Your task to perform on an android device: empty trash in the gmail app Image 0: 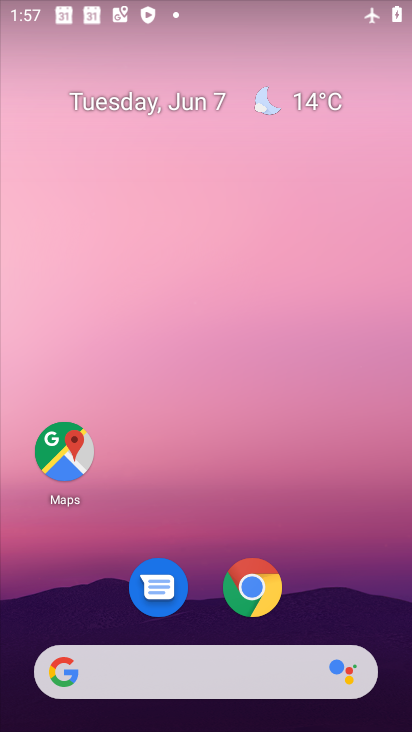
Step 0: drag from (263, 662) to (224, 177)
Your task to perform on an android device: empty trash in the gmail app Image 1: 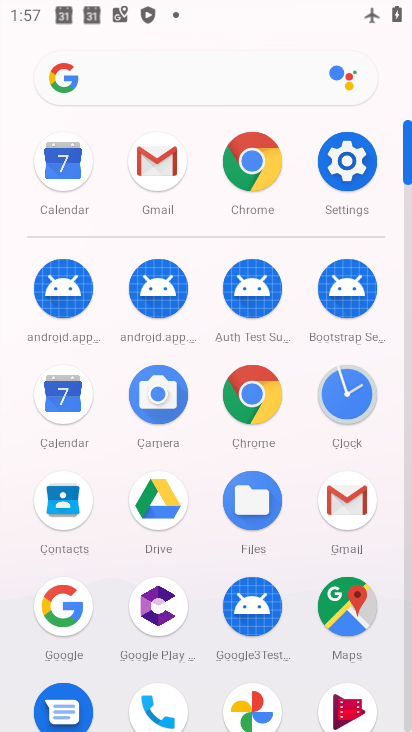
Step 1: drag from (229, 517) to (245, 294)
Your task to perform on an android device: empty trash in the gmail app Image 2: 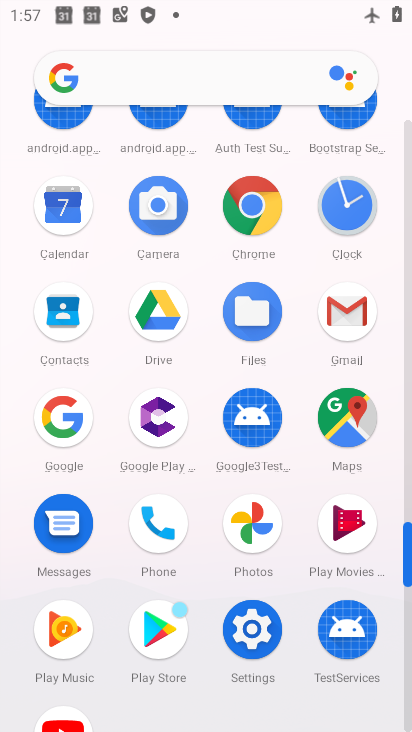
Step 2: click (356, 324)
Your task to perform on an android device: empty trash in the gmail app Image 3: 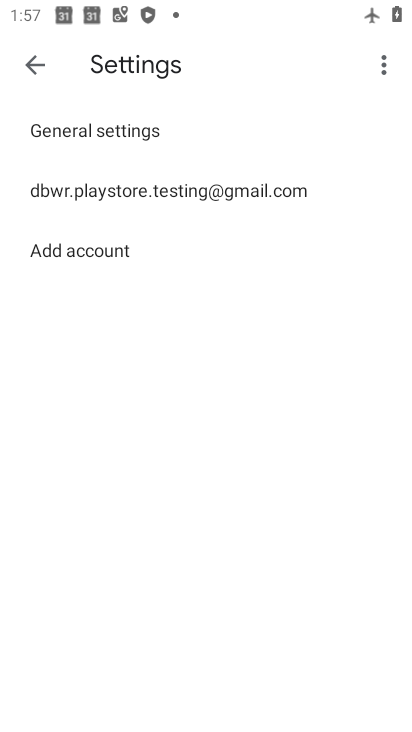
Step 3: click (32, 55)
Your task to perform on an android device: empty trash in the gmail app Image 4: 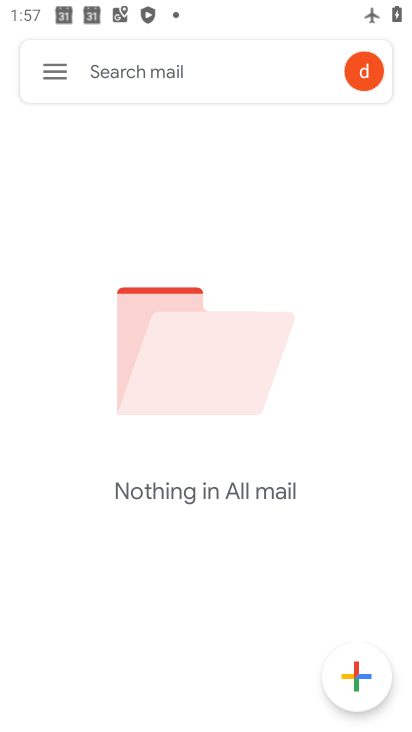
Step 4: click (66, 85)
Your task to perform on an android device: empty trash in the gmail app Image 5: 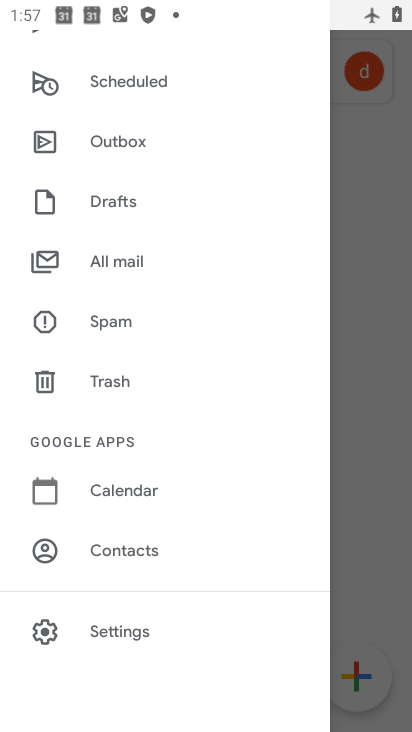
Step 5: click (141, 384)
Your task to perform on an android device: empty trash in the gmail app Image 6: 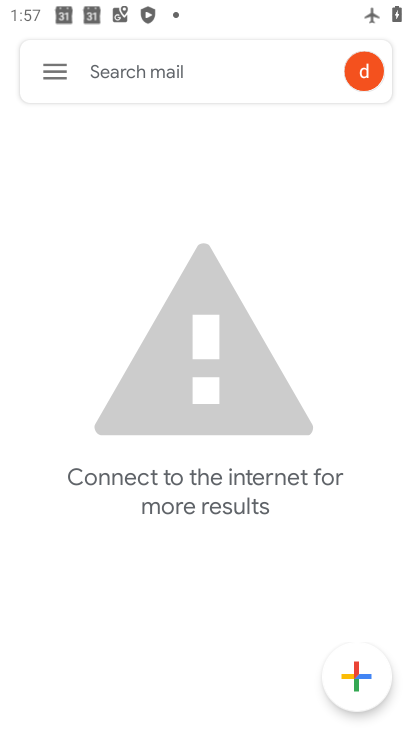
Step 6: task complete